Your task to perform on an android device: delete location history Image 0: 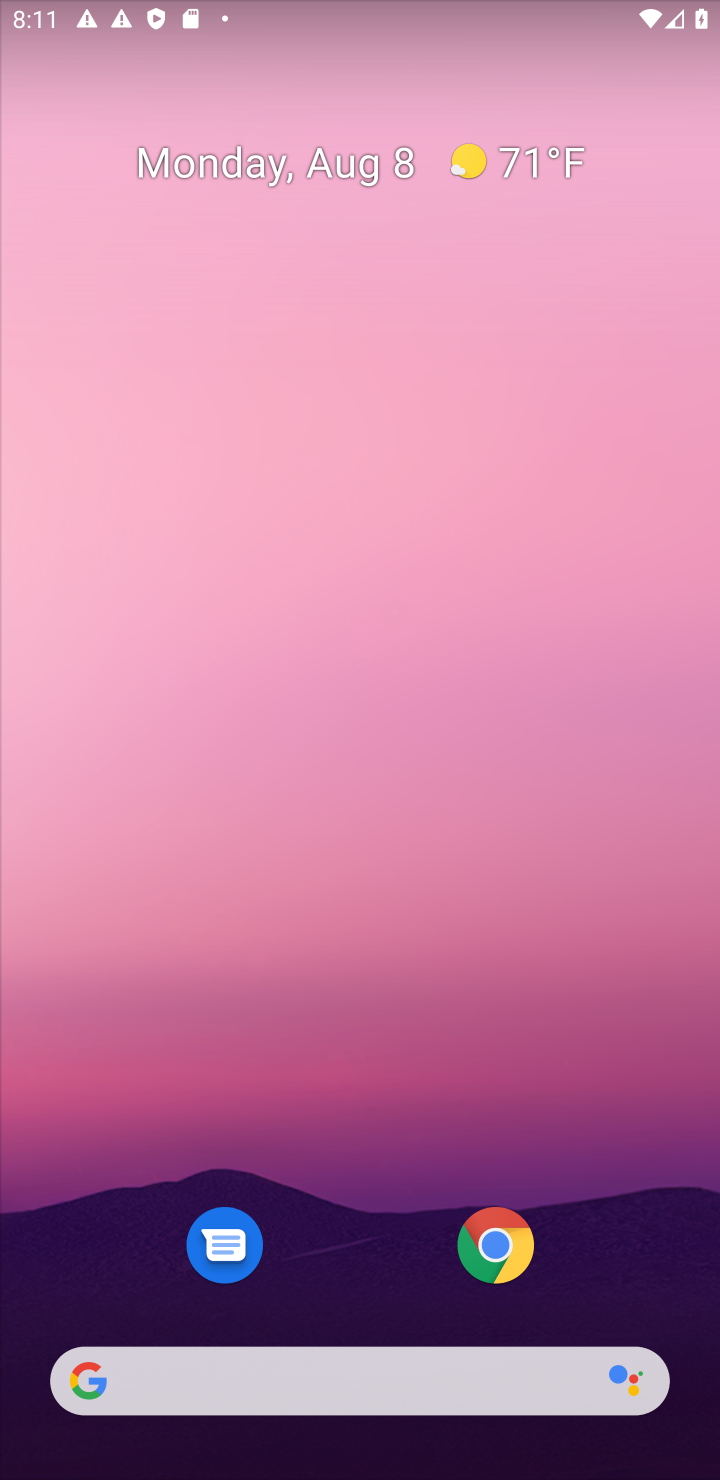
Step 0: press home button
Your task to perform on an android device: delete location history Image 1: 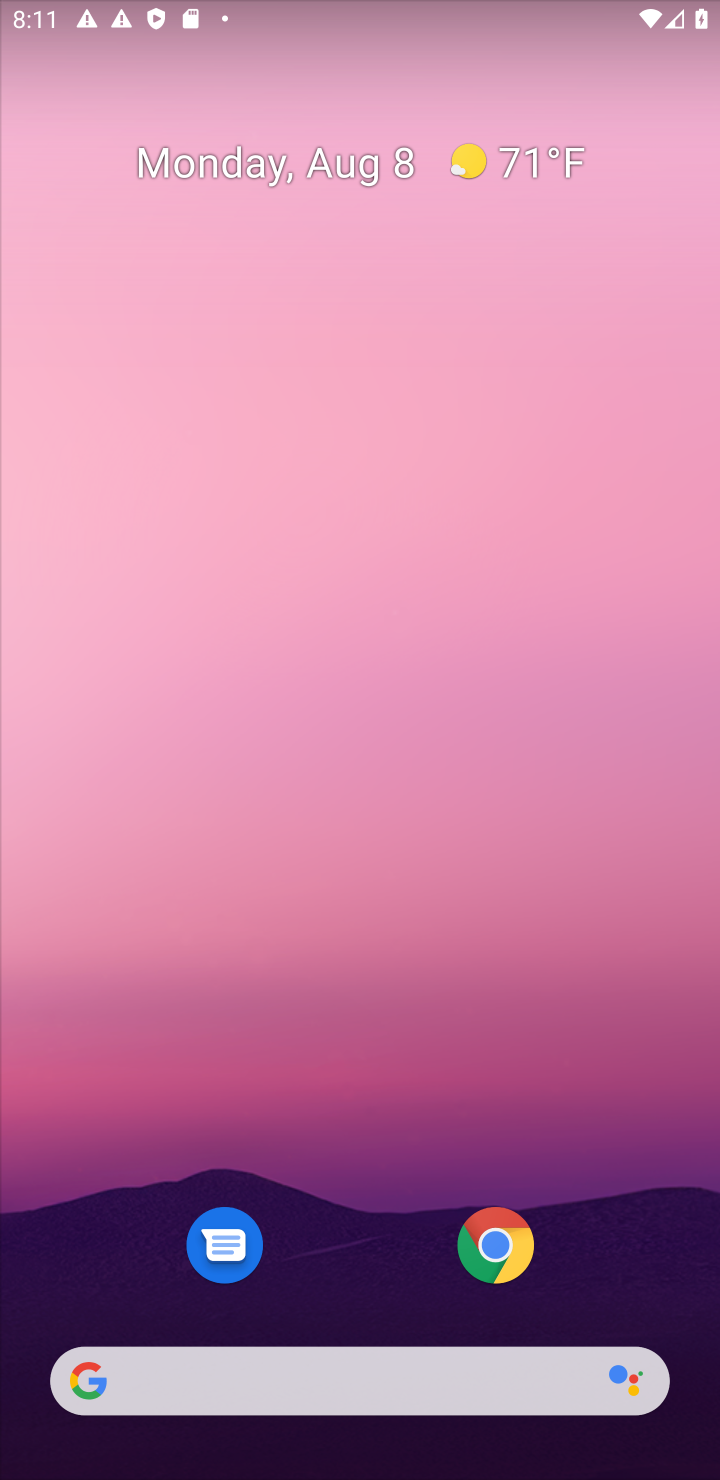
Step 1: drag from (320, 1236) to (394, 11)
Your task to perform on an android device: delete location history Image 2: 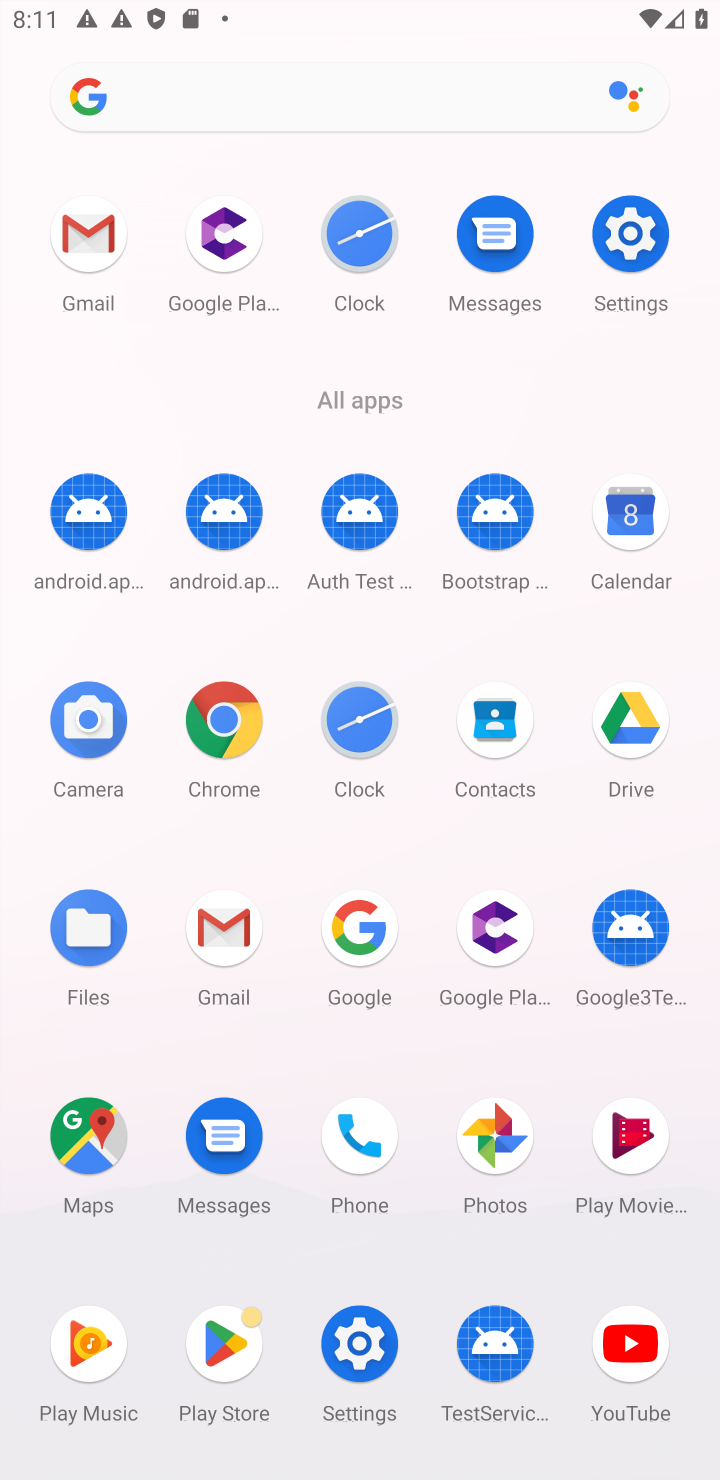
Step 2: click (78, 1162)
Your task to perform on an android device: delete location history Image 3: 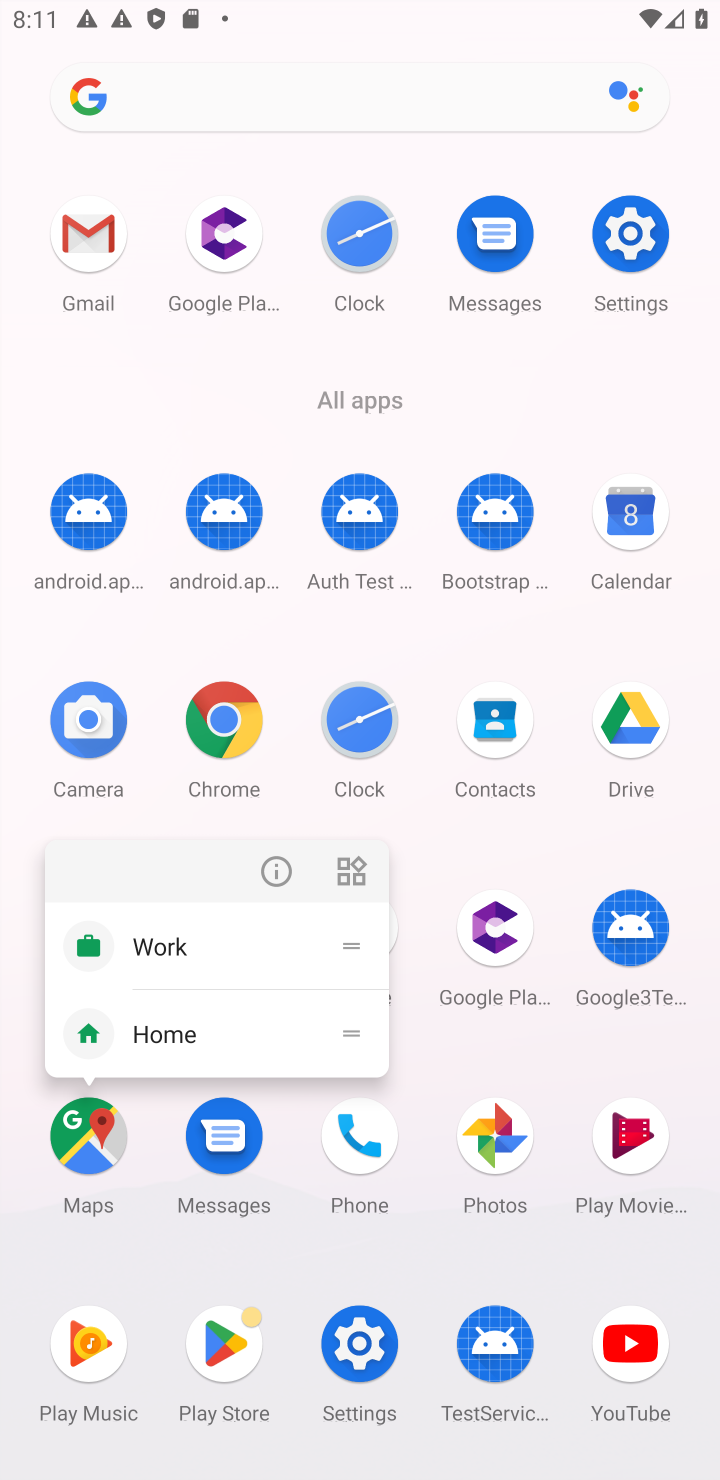
Step 3: click (81, 1149)
Your task to perform on an android device: delete location history Image 4: 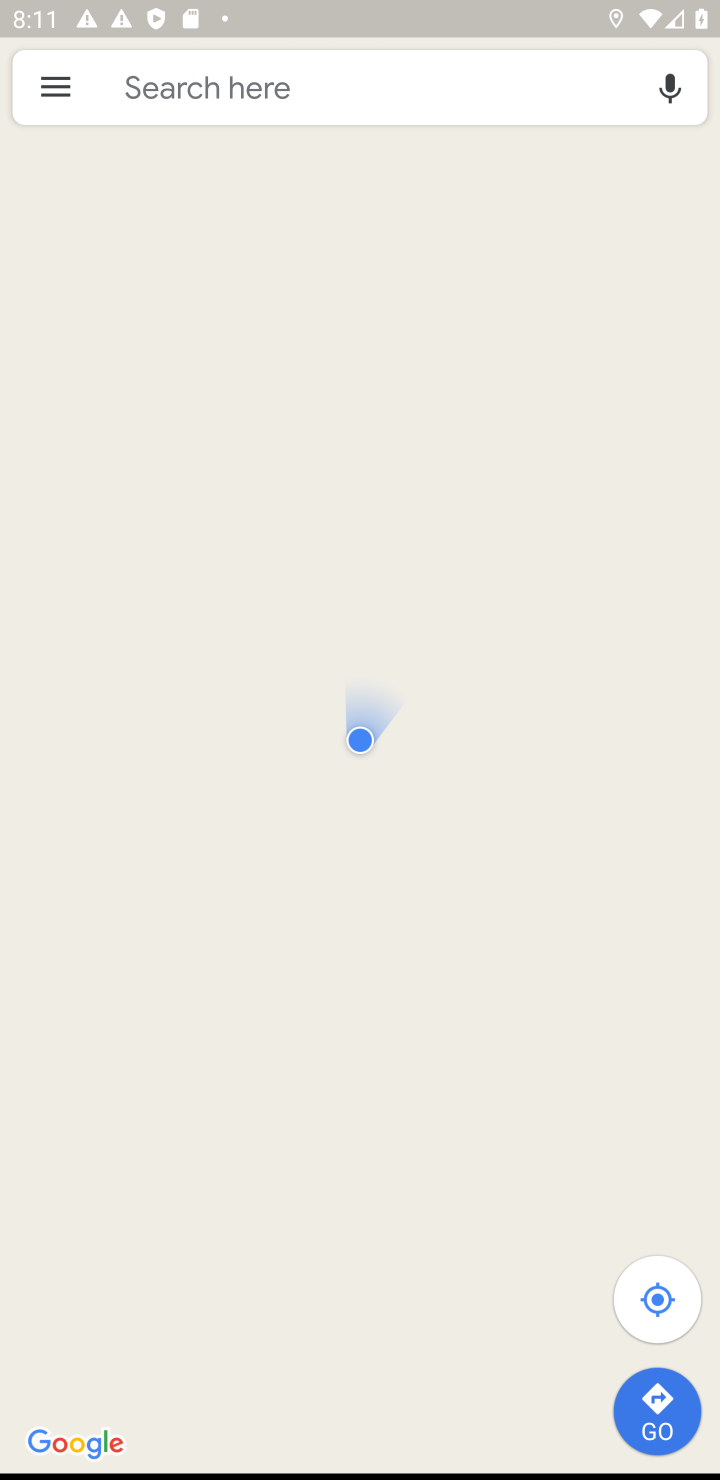
Step 4: click (56, 96)
Your task to perform on an android device: delete location history Image 5: 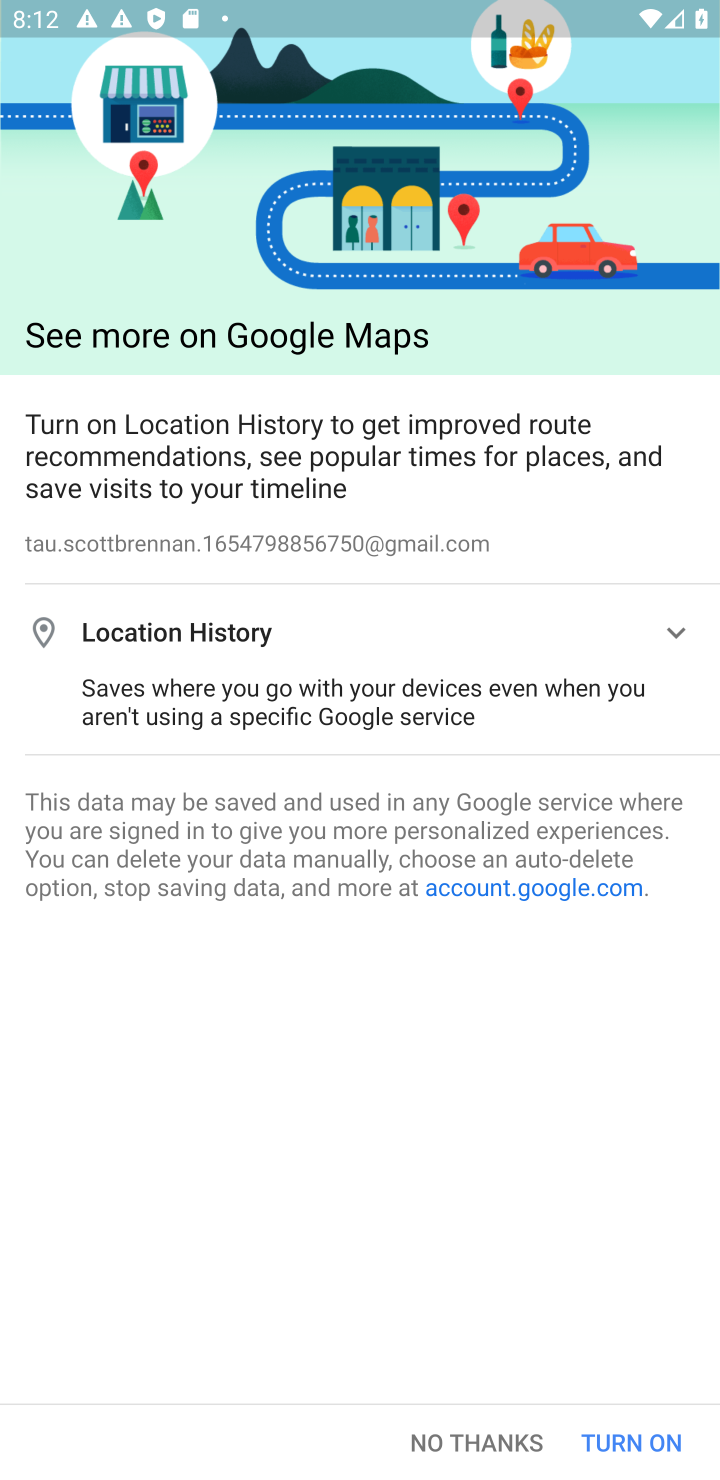
Step 5: click (635, 1443)
Your task to perform on an android device: delete location history Image 6: 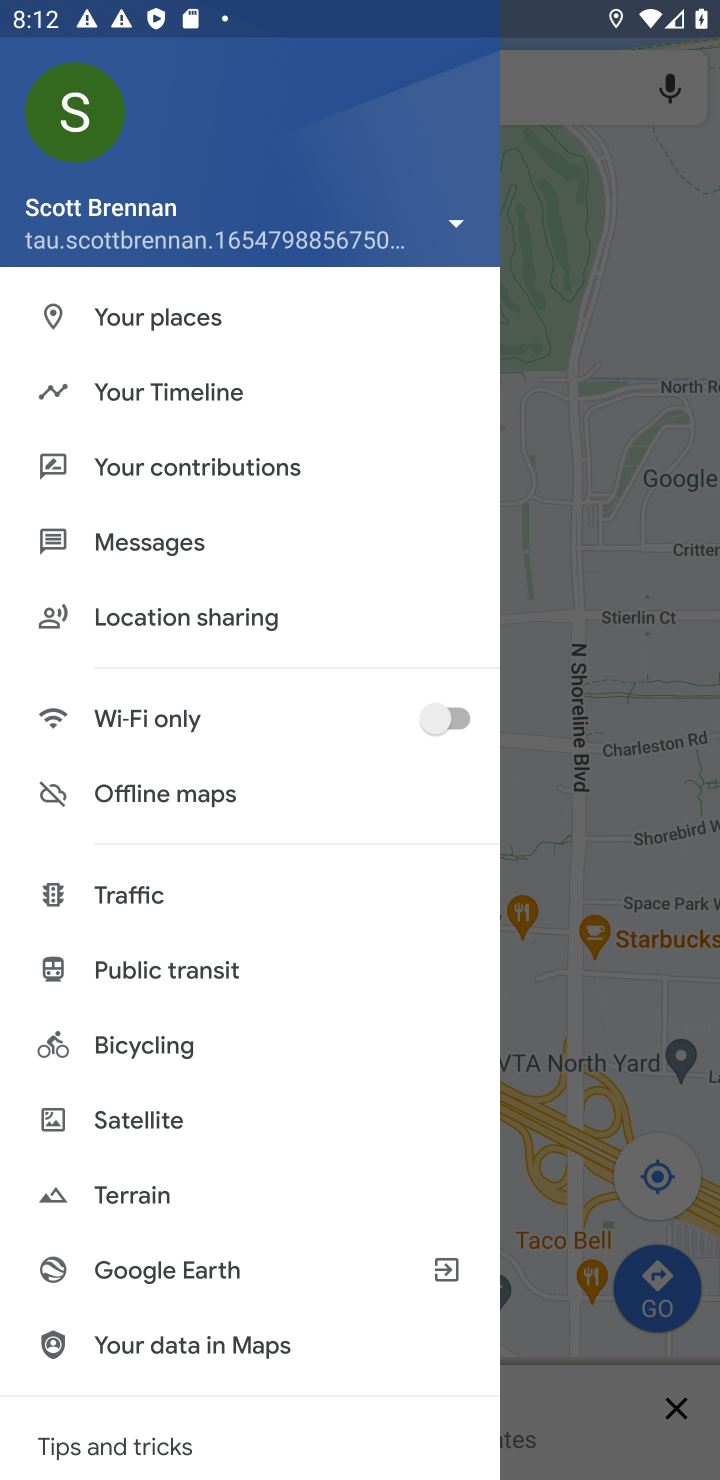
Step 6: click (193, 391)
Your task to perform on an android device: delete location history Image 7: 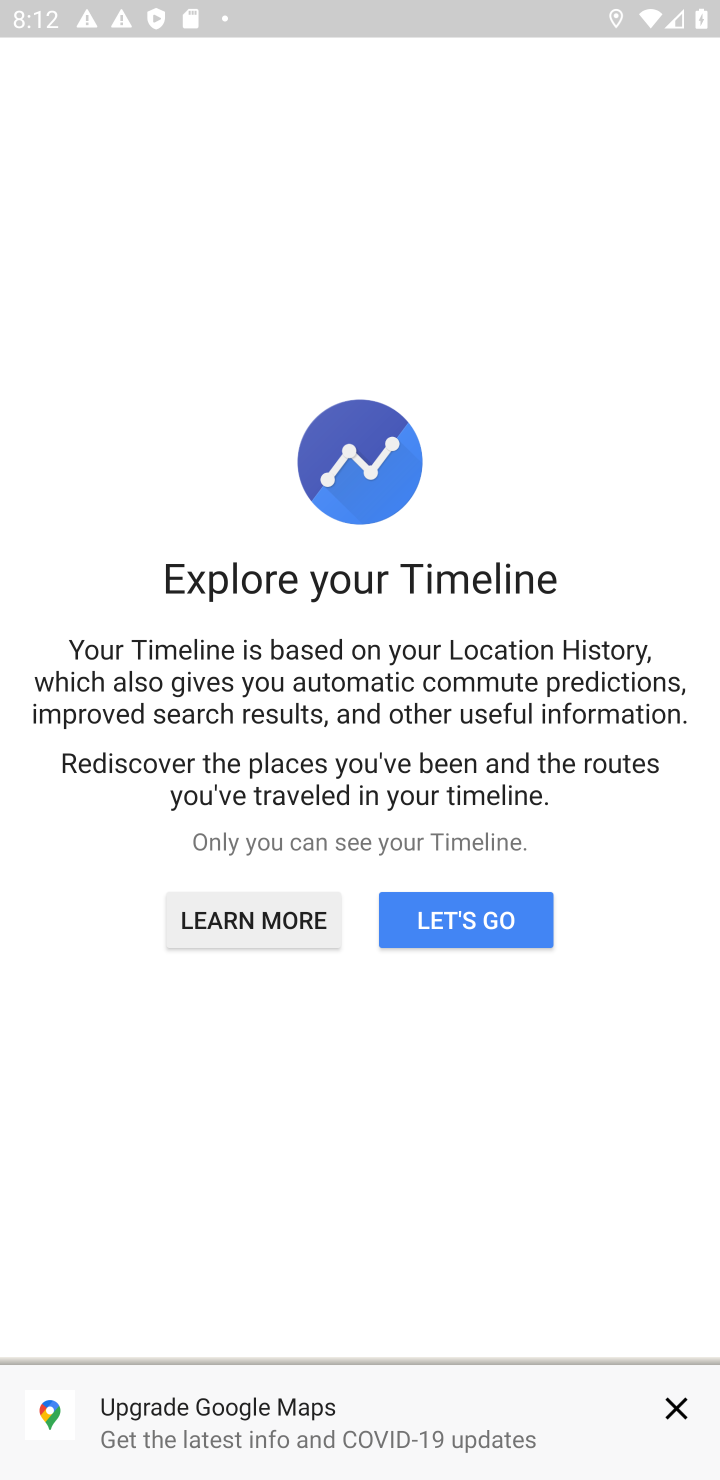
Step 7: click (503, 917)
Your task to perform on an android device: delete location history Image 8: 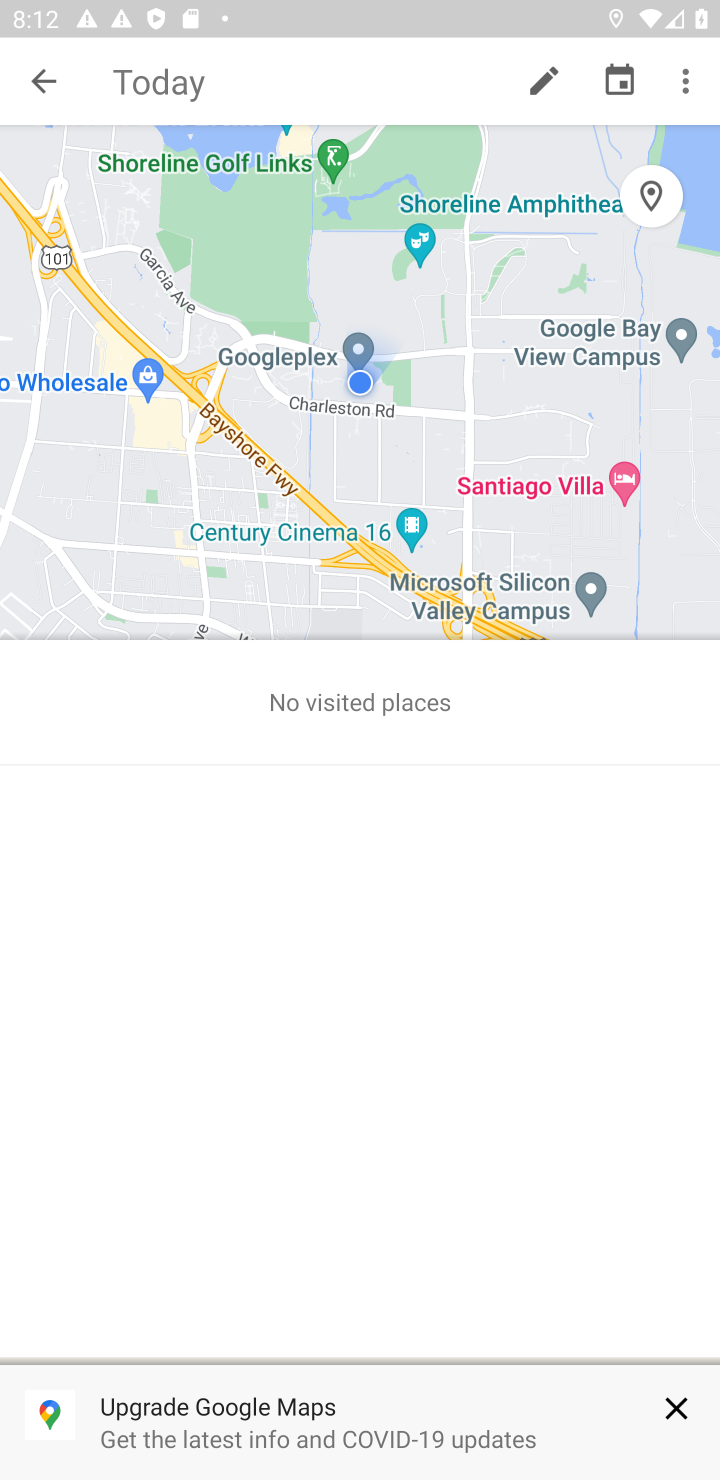
Step 8: click (673, 76)
Your task to perform on an android device: delete location history Image 9: 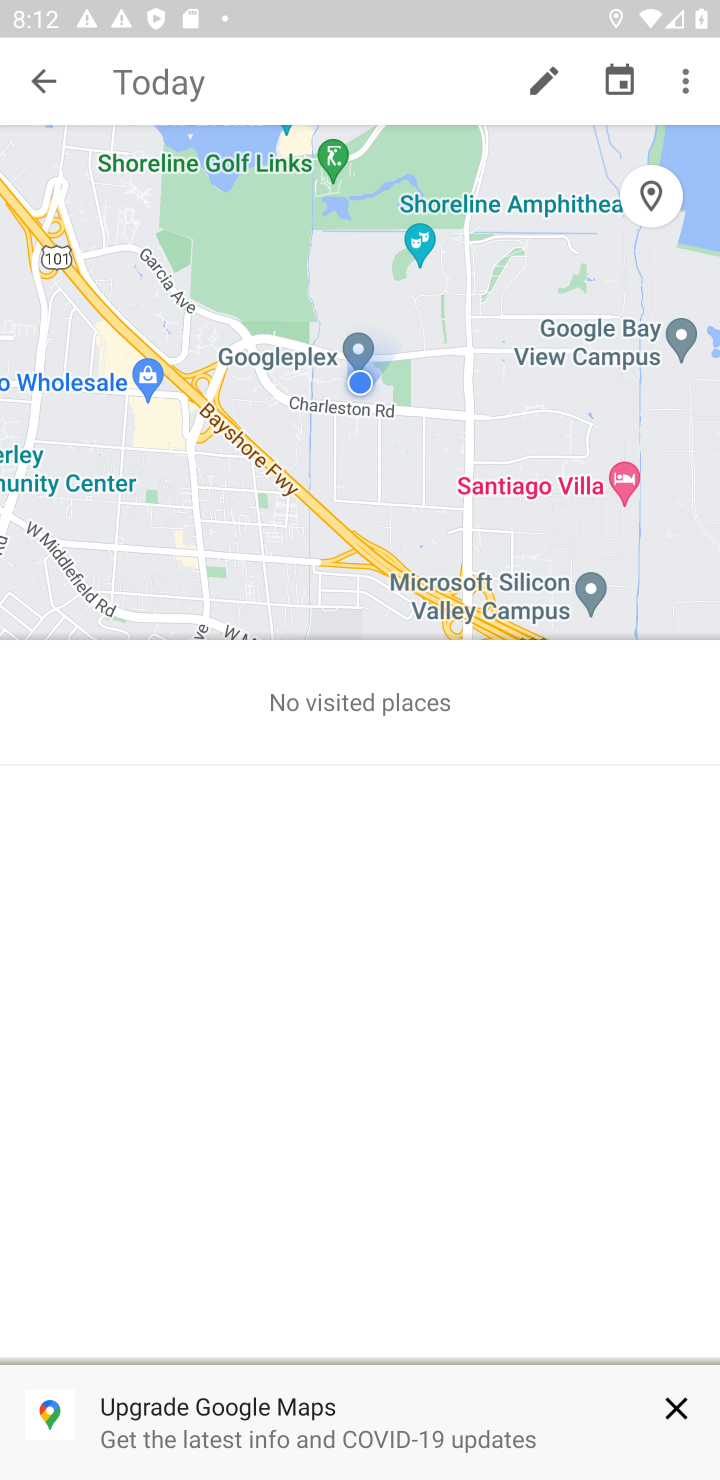
Step 9: click (677, 78)
Your task to perform on an android device: delete location history Image 10: 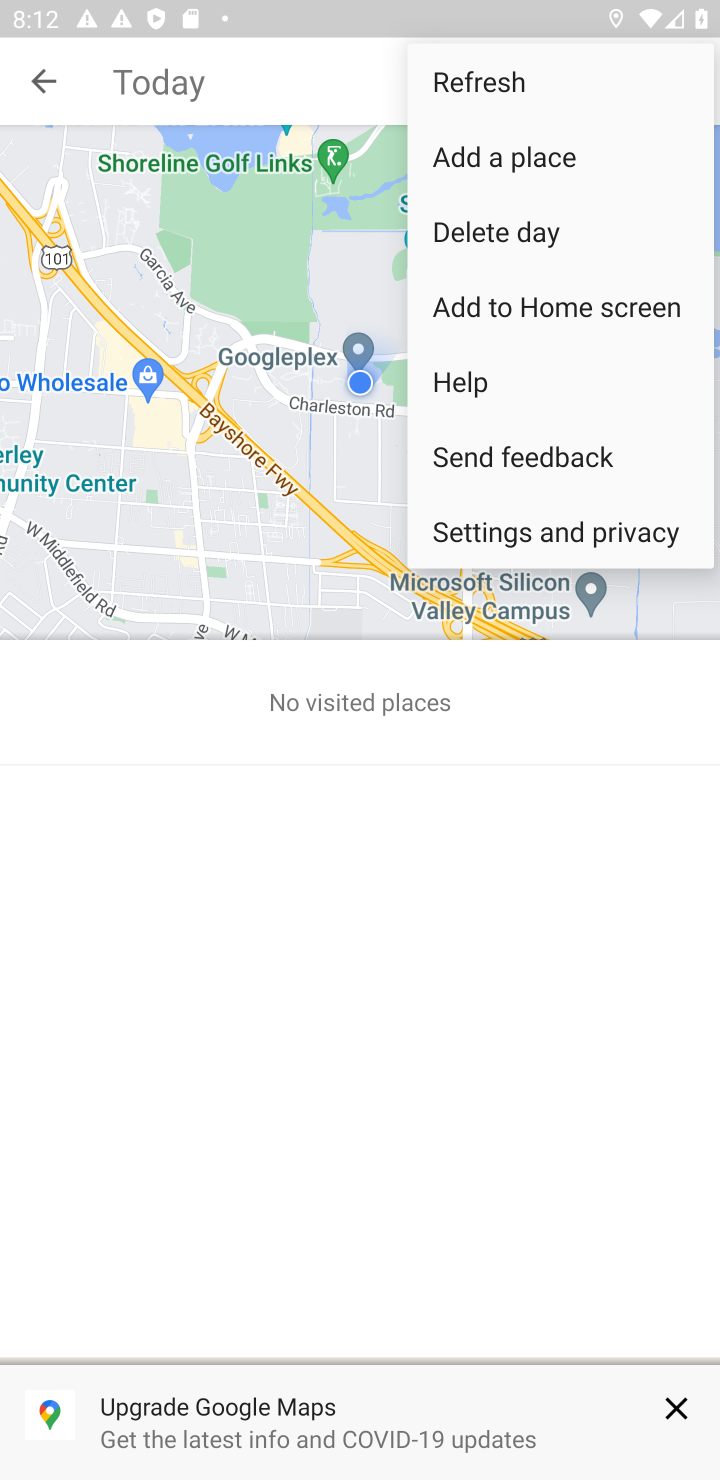
Step 10: click (505, 531)
Your task to perform on an android device: delete location history Image 11: 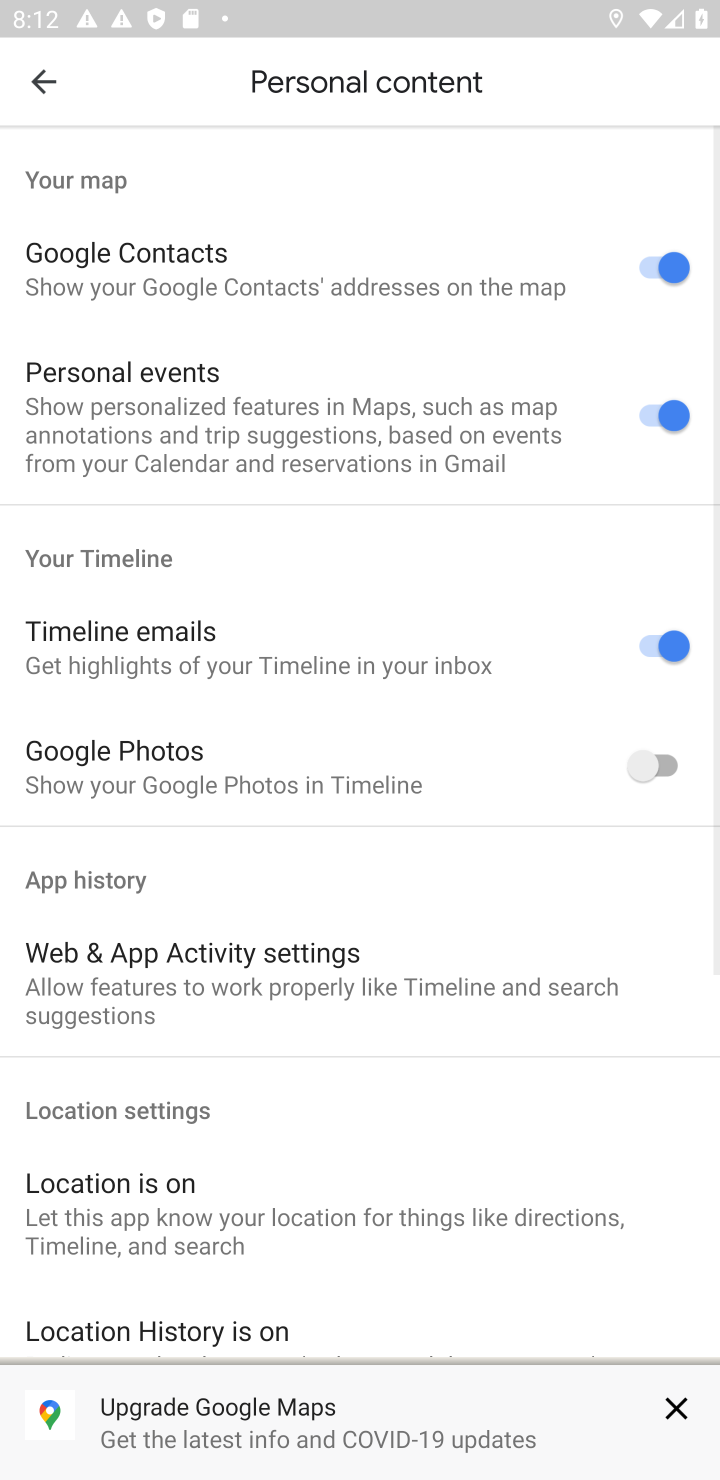
Step 11: drag from (218, 1170) to (321, 661)
Your task to perform on an android device: delete location history Image 12: 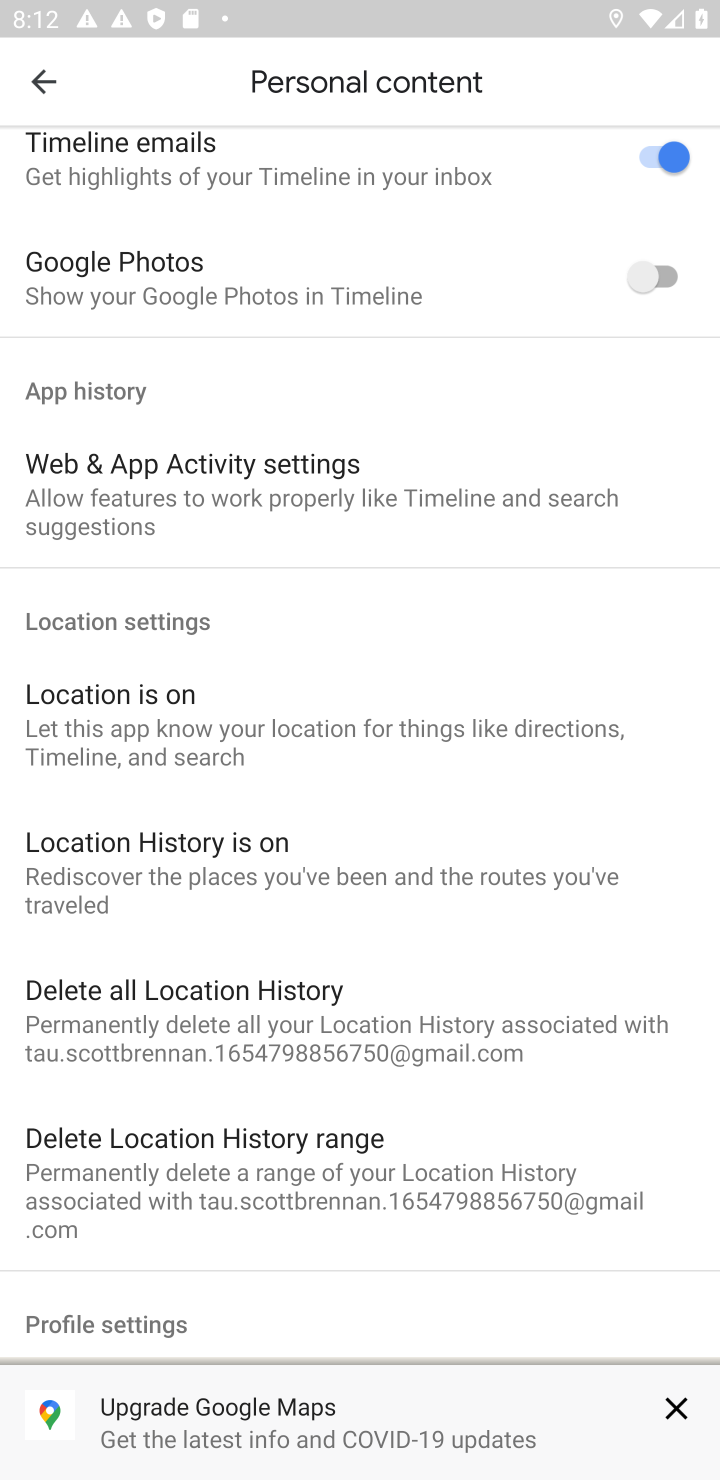
Step 12: click (201, 1021)
Your task to perform on an android device: delete location history Image 13: 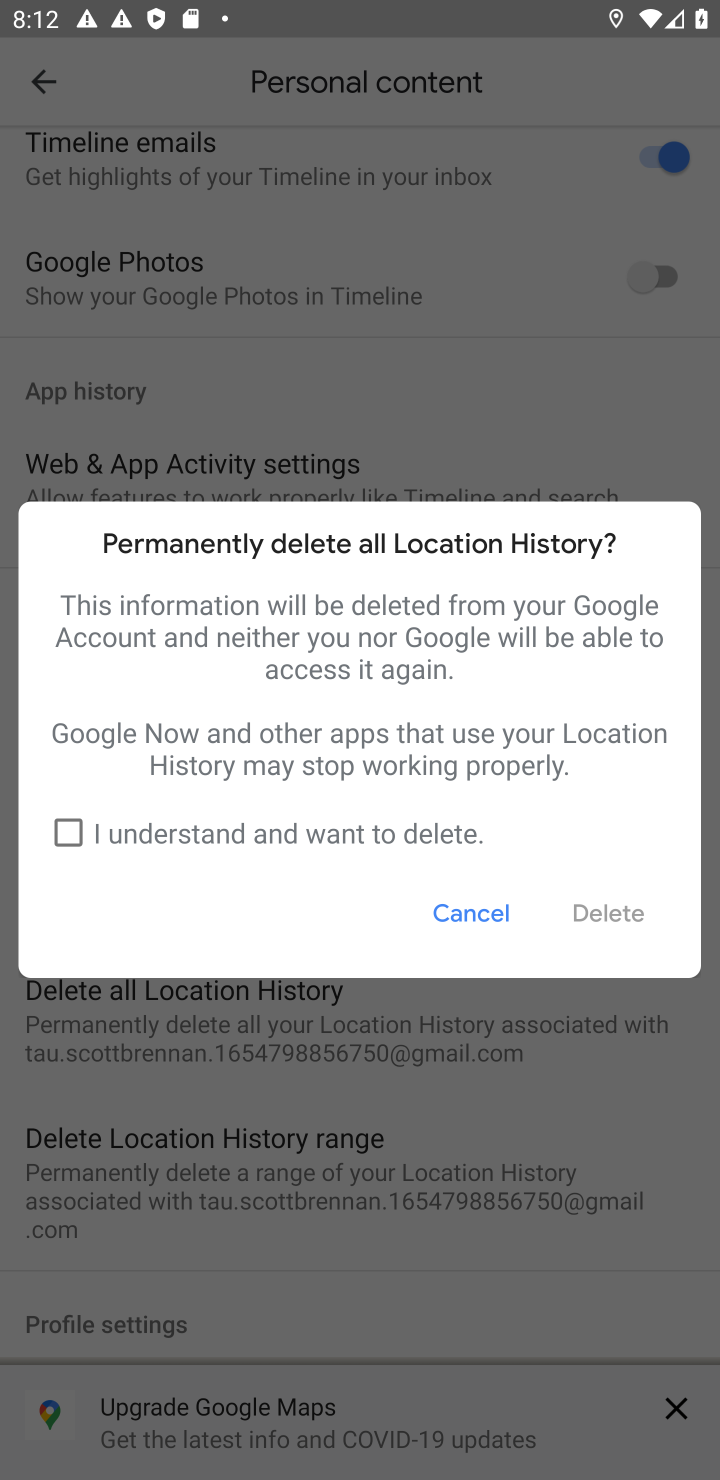
Step 13: click (125, 840)
Your task to perform on an android device: delete location history Image 14: 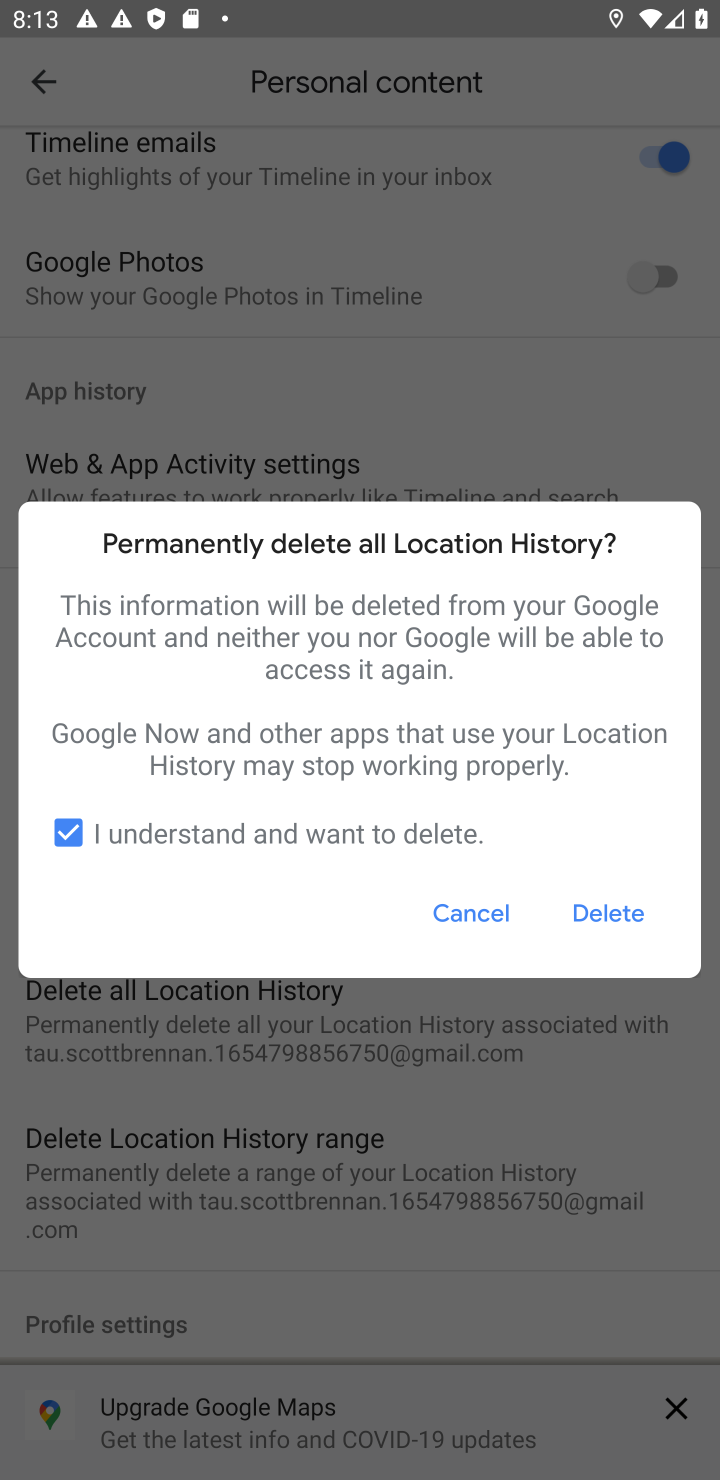
Step 14: click (591, 911)
Your task to perform on an android device: delete location history Image 15: 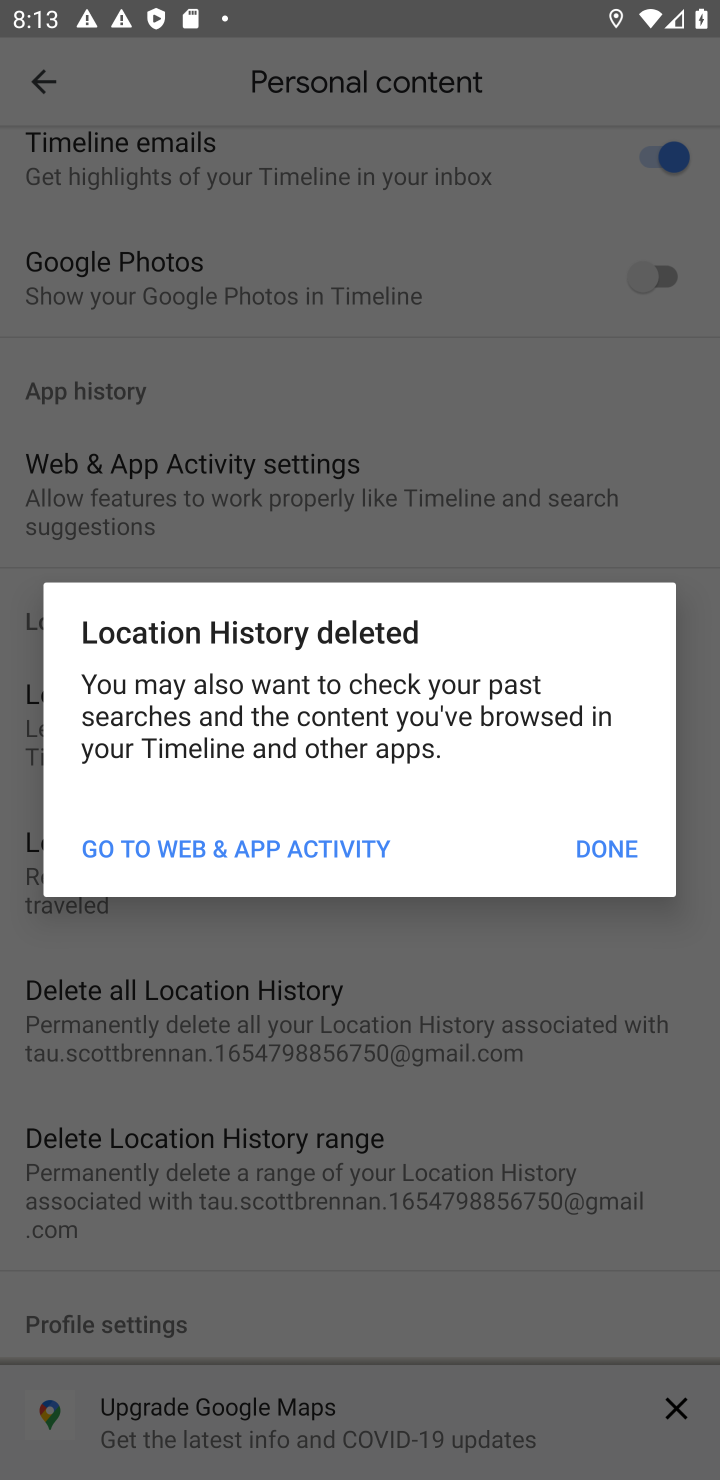
Step 15: click (595, 837)
Your task to perform on an android device: delete location history Image 16: 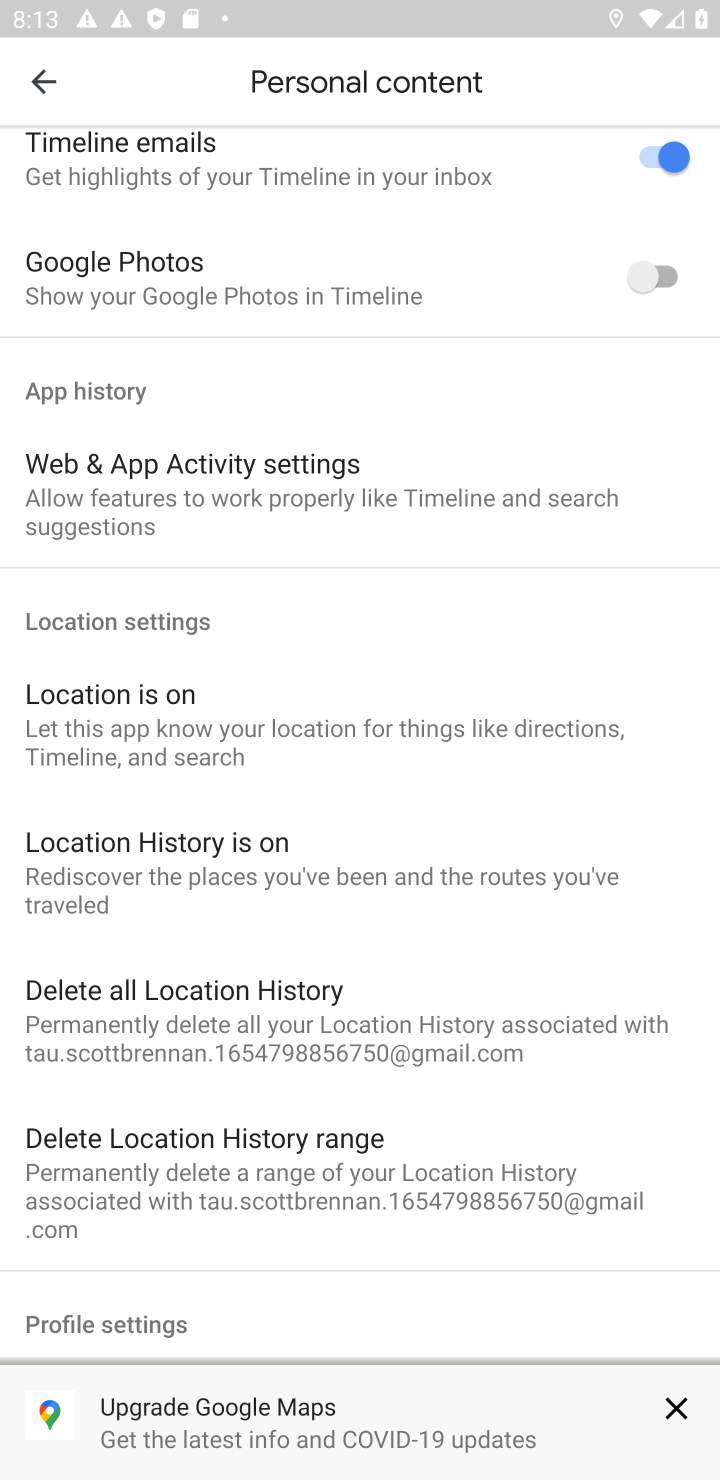
Step 16: click (682, 1400)
Your task to perform on an android device: delete location history Image 17: 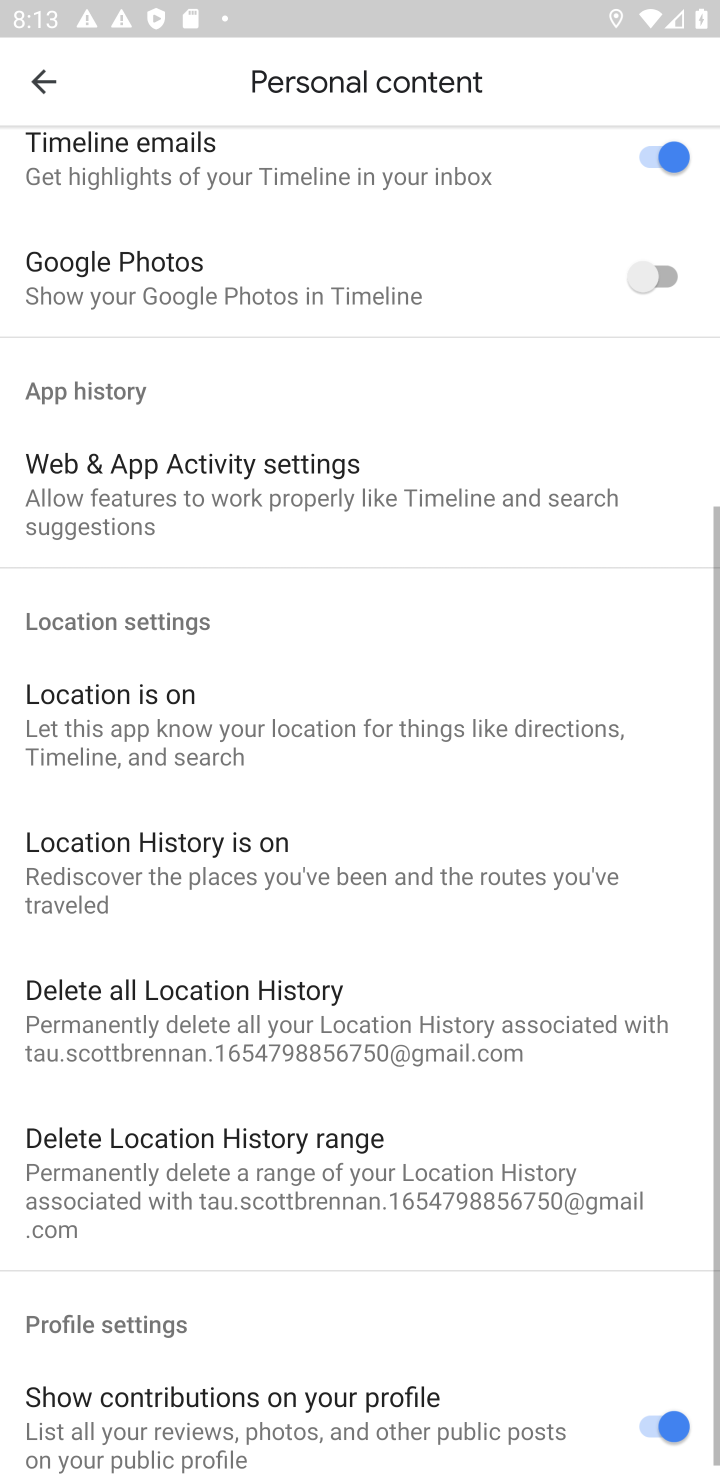
Step 17: task complete